Your task to perform on an android device: What's on my calendar today? Image 0: 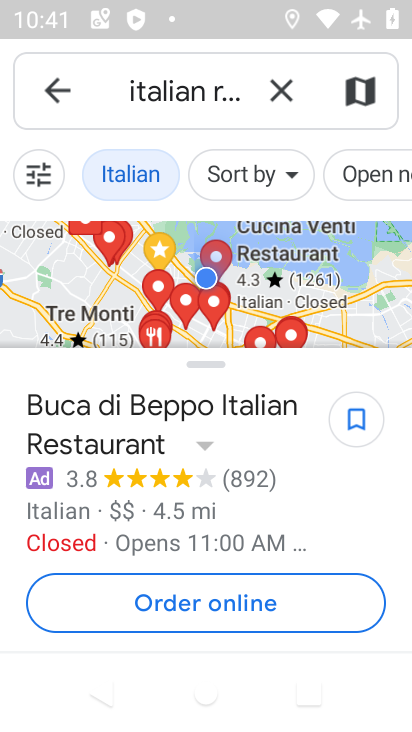
Step 0: press home button
Your task to perform on an android device: What's on my calendar today? Image 1: 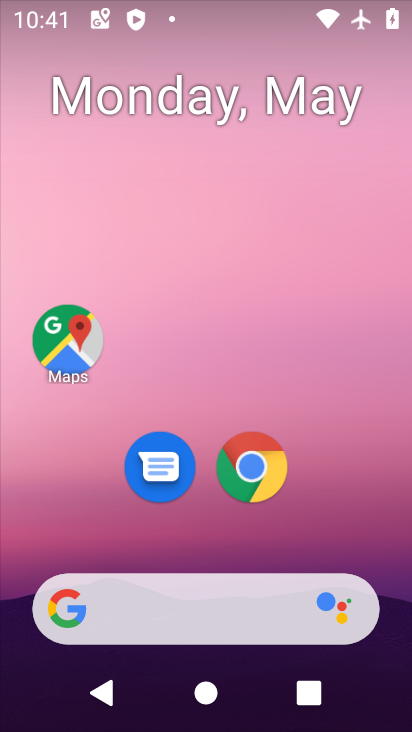
Step 1: drag from (205, 474) to (260, 6)
Your task to perform on an android device: What's on my calendar today? Image 2: 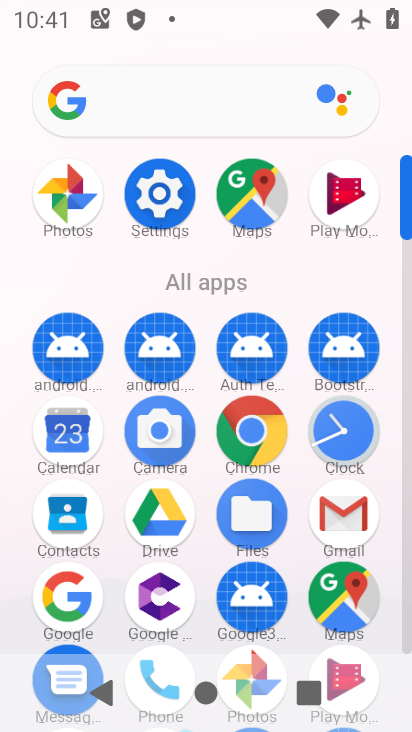
Step 2: click (73, 446)
Your task to perform on an android device: What's on my calendar today? Image 3: 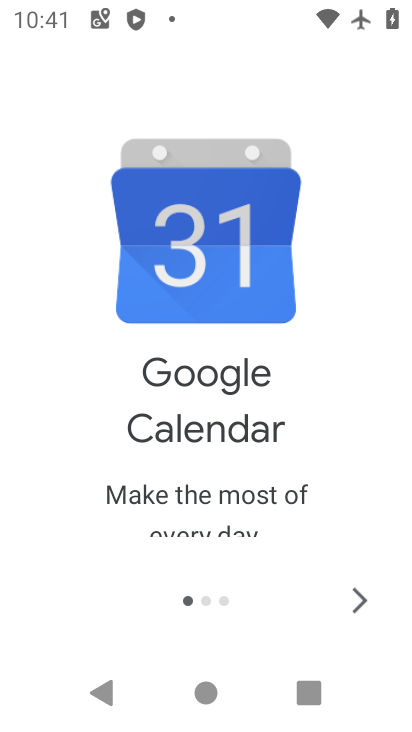
Step 3: click (351, 594)
Your task to perform on an android device: What's on my calendar today? Image 4: 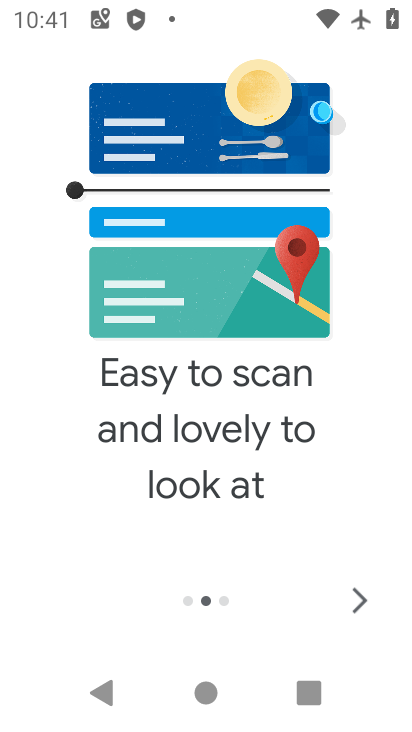
Step 4: click (351, 593)
Your task to perform on an android device: What's on my calendar today? Image 5: 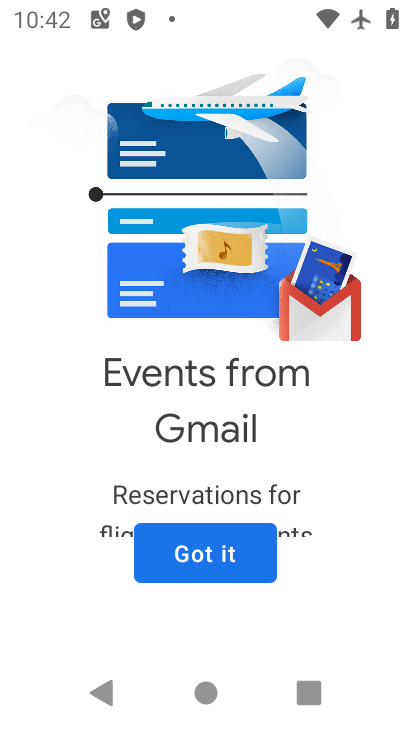
Step 5: click (195, 550)
Your task to perform on an android device: What's on my calendar today? Image 6: 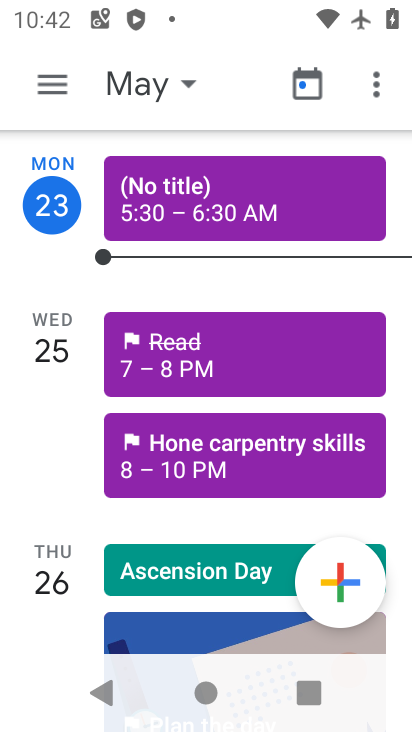
Step 6: click (164, 82)
Your task to perform on an android device: What's on my calendar today? Image 7: 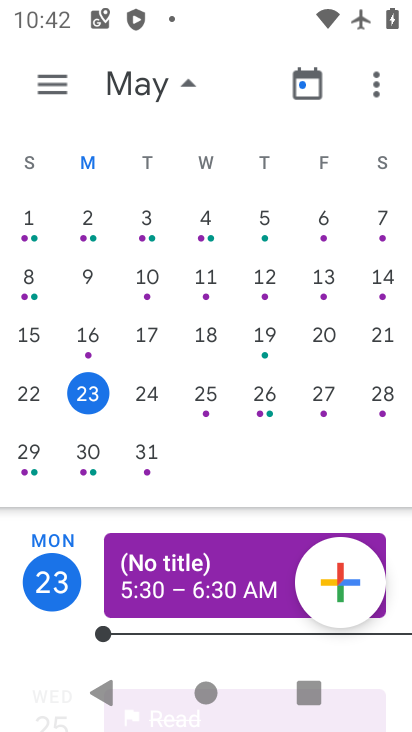
Step 7: click (83, 396)
Your task to perform on an android device: What's on my calendar today? Image 8: 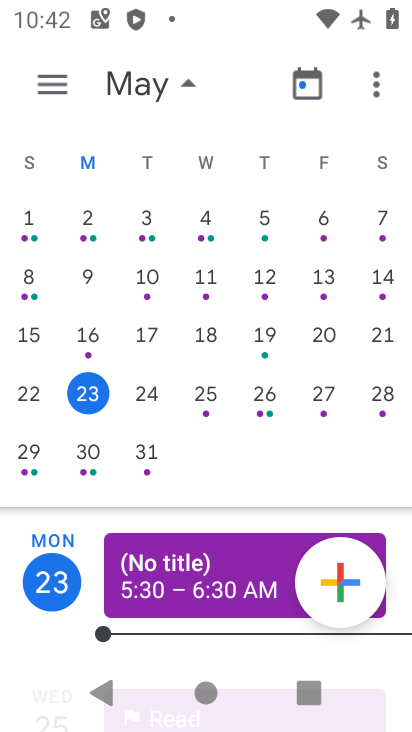
Step 8: task complete